Your task to perform on an android device: Go to internet settings Image 0: 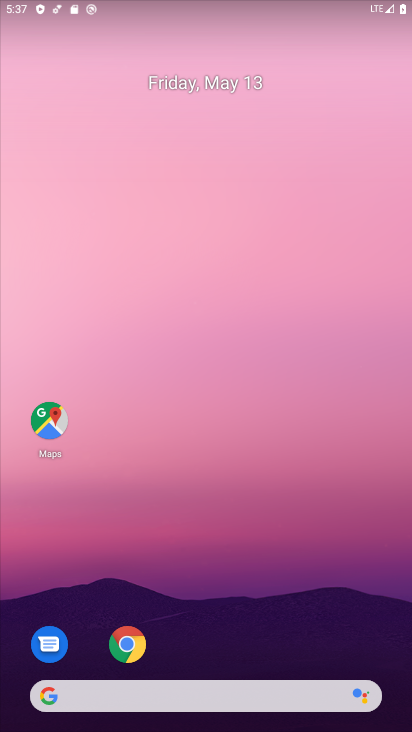
Step 0: drag from (211, 627) to (339, 65)
Your task to perform on an android device: Go to internet settings Image 1: 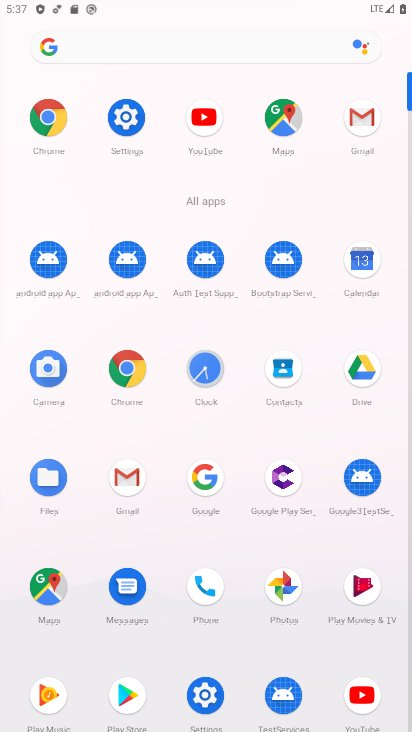
Step 1: click (133, 129)
Your task to perform on an android device: Go to internet settings Image 2: 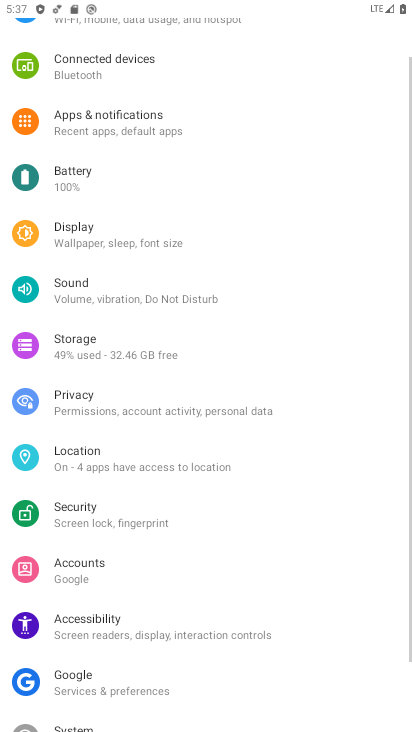
Step 2: drag from (163, 119) to (133, 415)
Your task to perform on an android device: Go to internet settings Image 3: 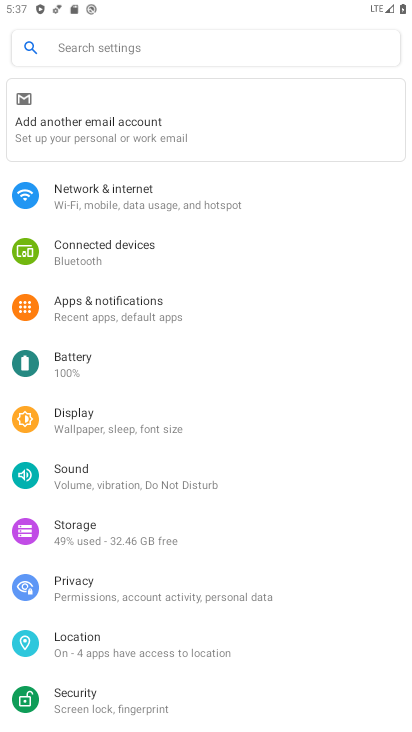
Step 3: click (142, 208)
Your task to perform on an android device: Go to internet settings Image 4: 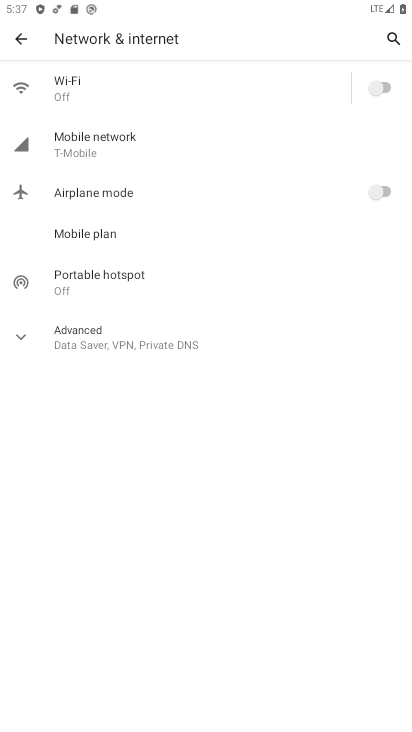
Step 4: task complete